Your task to perform on an android device: manage bookmarks in the chrome app Image 0: 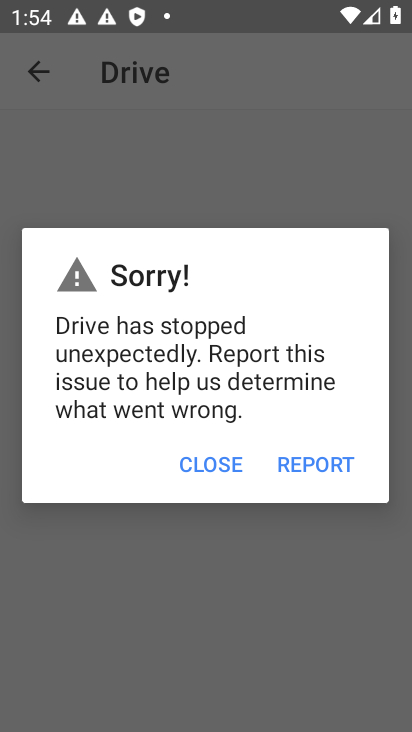
Step 0: press home button
Your task to perform on an android device: manage bookmarks in the chrome app Image 1: 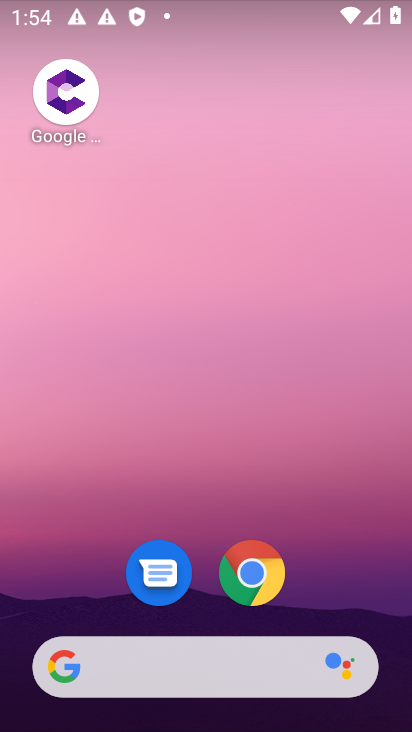
Step 1: drag from (349, 589) to (351, 122)
Your task to perform on an android device: manage bookmarks in the chrome app Image 2: 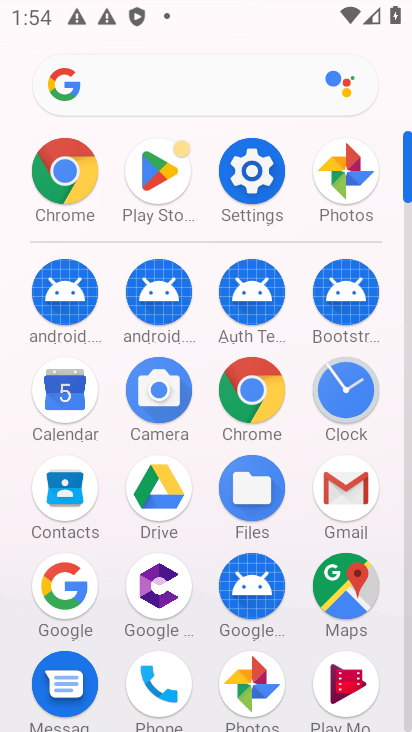
Step 2: click (262, 382)
Your task to perform on an android device: manage bookmarks in the chrome app Image 3: 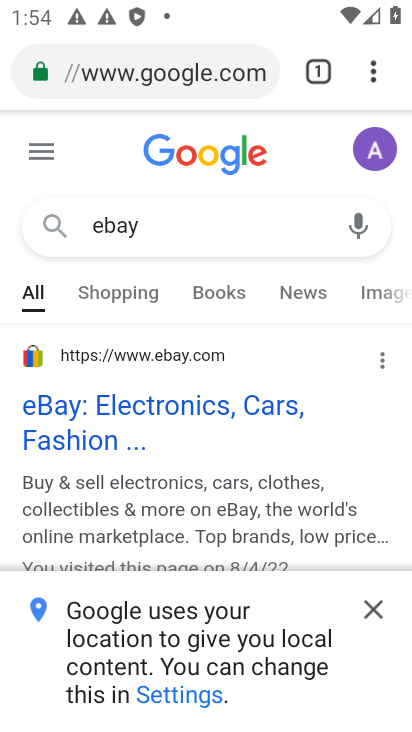
Step 3: click (372, 79)
Your task to perform on an android device: manage bookmarks in the chrome app Image 4: 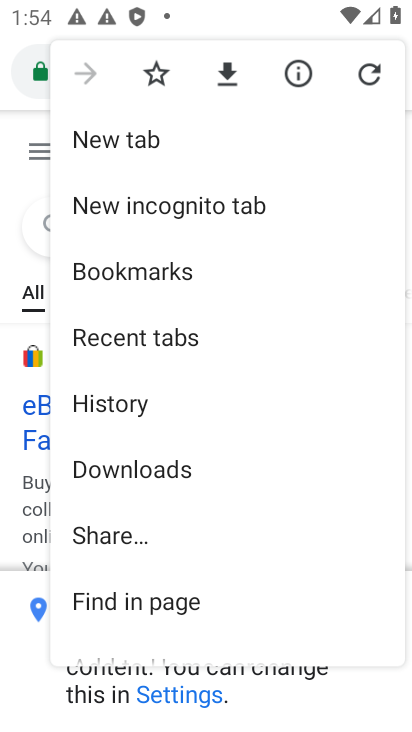
Step 4: click (180, 277)
Your task to perform on an android device: manage bookmarks in the chrome app Image 5: 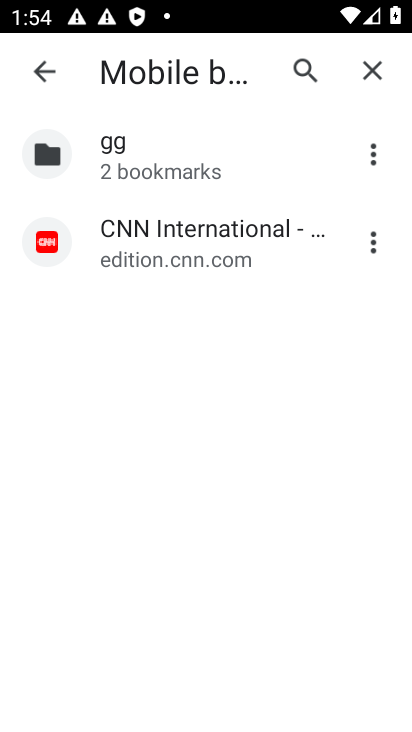
Step 5: click (376, 153)
Your task to perform on an android device: manage bookmarks in the chrome app Image 6: 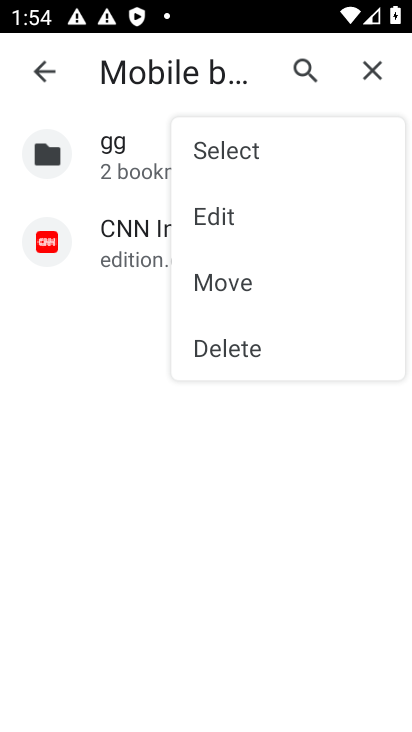
Step 6: click (233, 223)
Your task to perform on an android device: manage bookmarks in the chrome app Image 7: 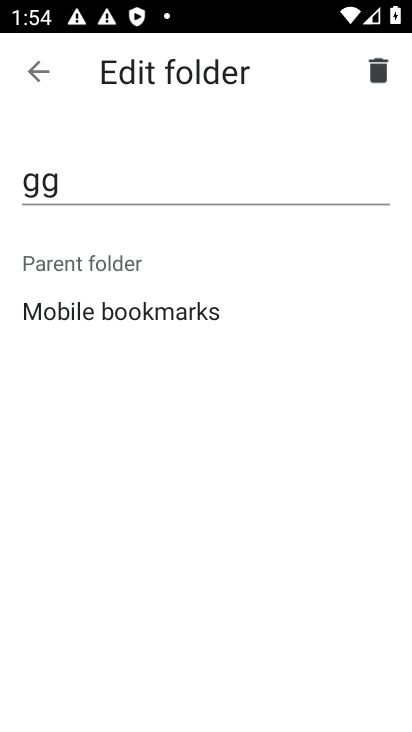
Step 7: click (99, 180)
Your task to perform on an android device: manage bookmarks in the chrome app Image 8: 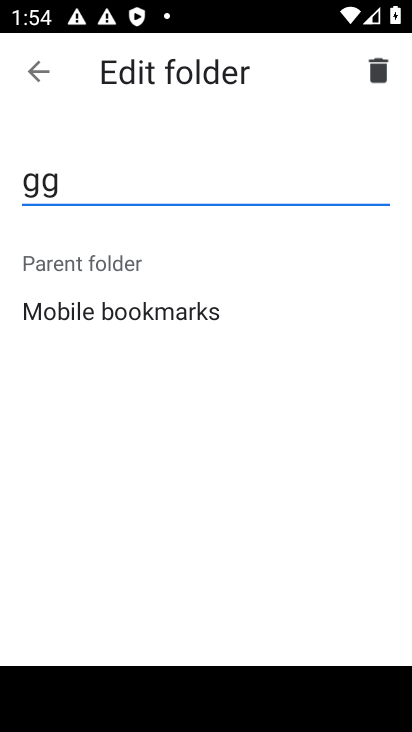
Step 8: type "g"
Your task to perform on an android device: manage bookmarks in the chrome app Image 9: 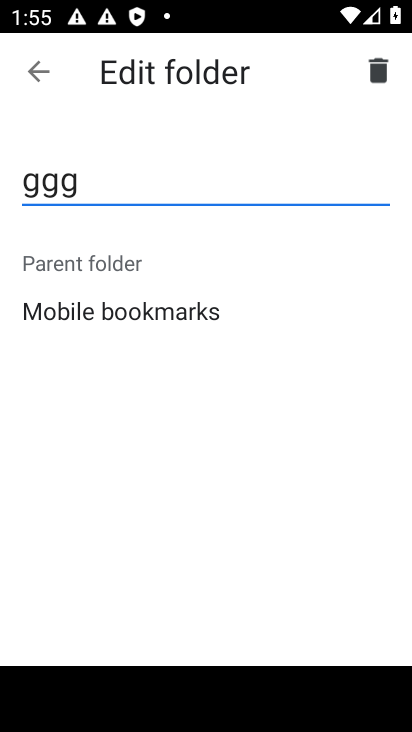
Step 9: click (38, 68)
Your task to perform on an android device: manage bookmarks in the chrome app Image 10: 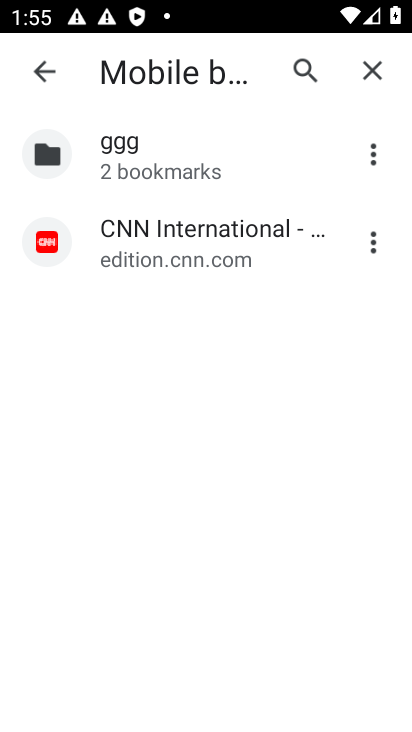
Step 10: task complete